Your task to perform on an android device: Open notification settings Image 0: 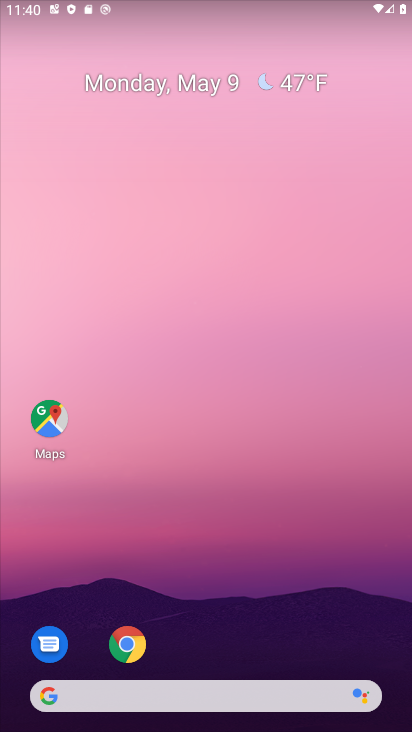
Step 0: drag from (17, 574) to (298, 19)
Your task to perform on an android device: Open notification settings Image 1: 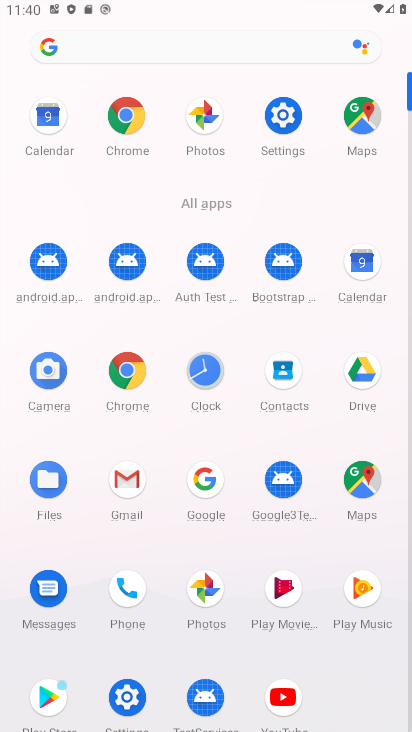
Step 1: click (282, 117)
Your task to perform on an android device: Open notification settings Image 2: 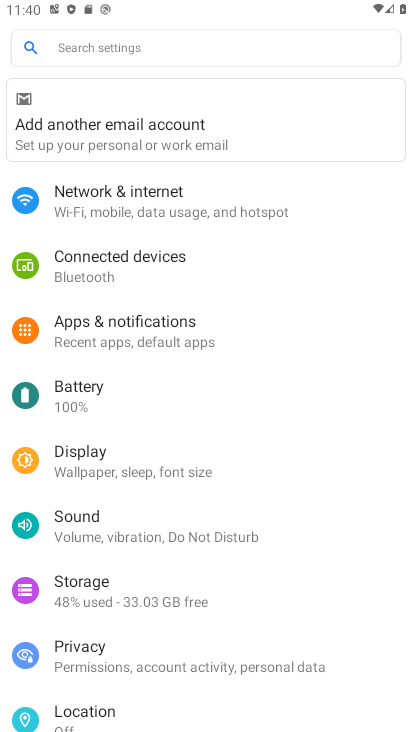
Step 2: click (140, 344)
Your task to perform on an android device: Open notification settings Image 3: 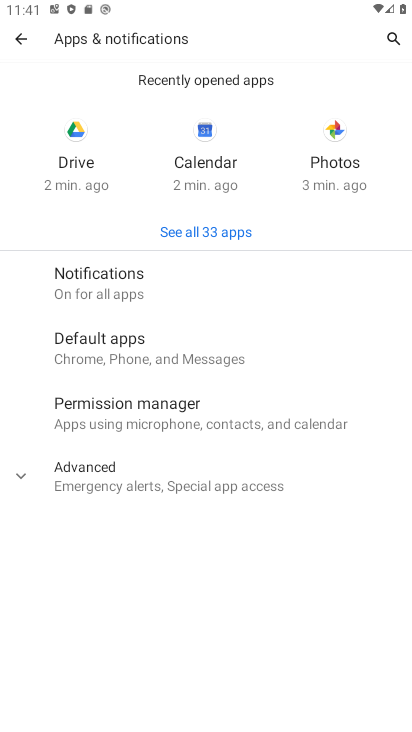
Step 3: click (125, 296)
Your task to perform on an android device: Open notification settings Image 4: 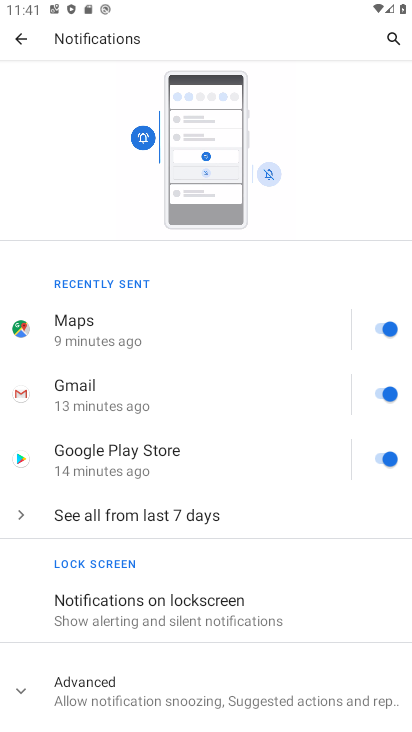
Step 4: task complete